Your task to perform on an android device: check android version Image 0: 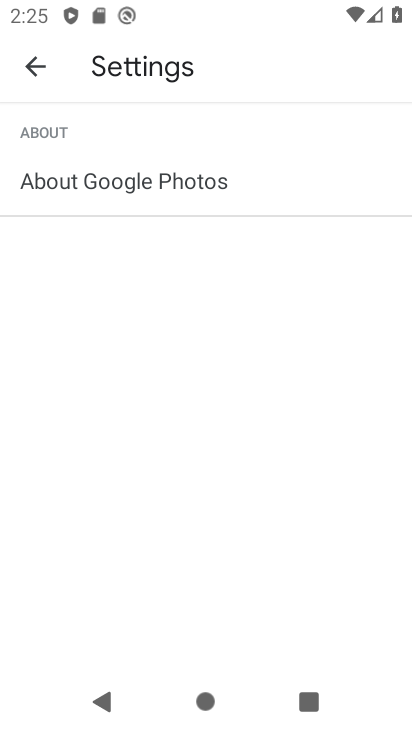
Step 0: press home button
Your task to perform on an android device: check android version Image 1: 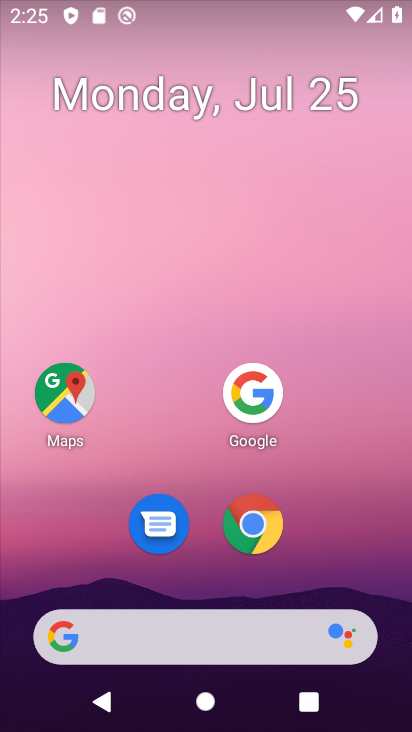
Step 1: drag from (238, 386) to (300, 83)
Your task to perform on an android device: check android version Image 2: 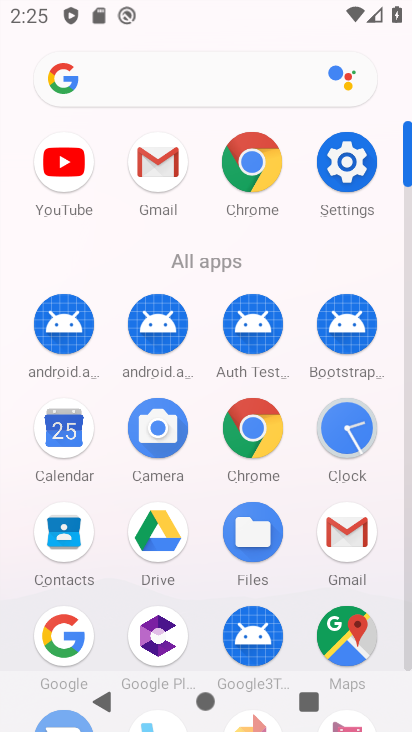
Step 2: click (345, 167)
Your task to perform on an android device: check android version Image 3: 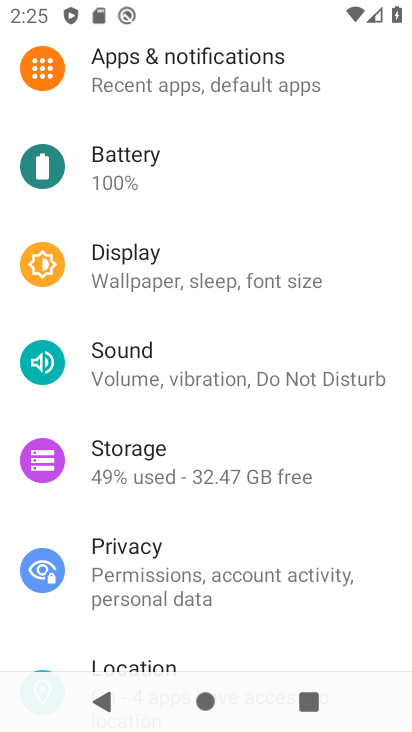
Step 3: drag from (283, 612) to (368, 86)
Your task to perform on an android device: check android version Image 4: 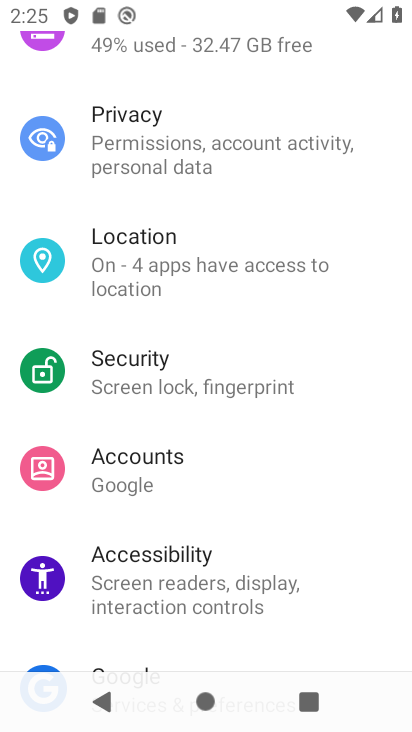
Step 4: drag from (261, 655) to (373, 68)
Your task to perform on an android device: check android version Image 5: 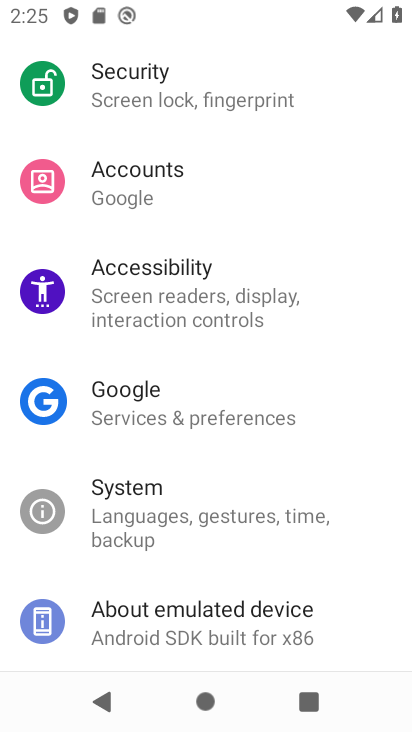
Step 5: click (231, 607)
Your task to perform on an android device: check android version Image 6: 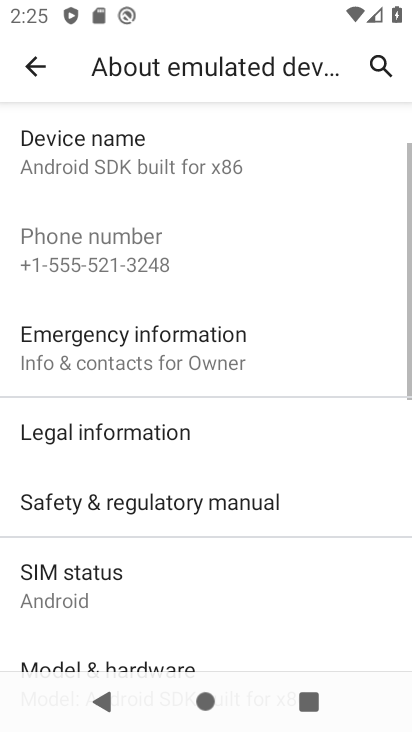
Step 6: drag from (290, 313) to (322, 228)
Your task to perform on an android device: check android version Image 7: 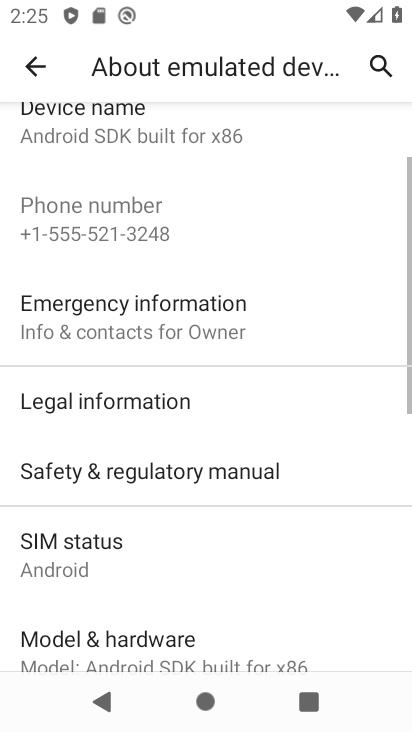
Step 7: drag from (169, 585) to (355, 177)
Your task to perform on an android device: check android version Image 8: 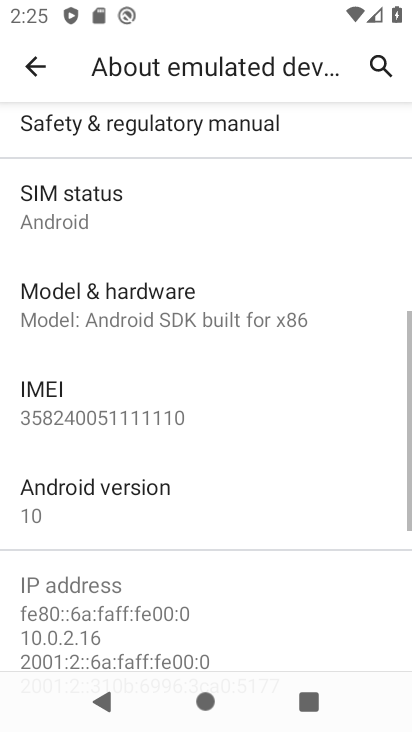
Step 8: click (144, 479)
Your task to perform on an android device: check android version Image 9: 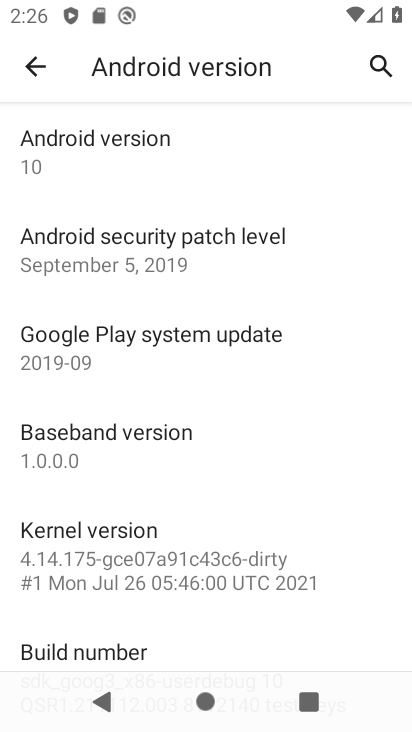
Step 9: task complete